Your task to perform on an android device: toggle sleep mode Image 0: 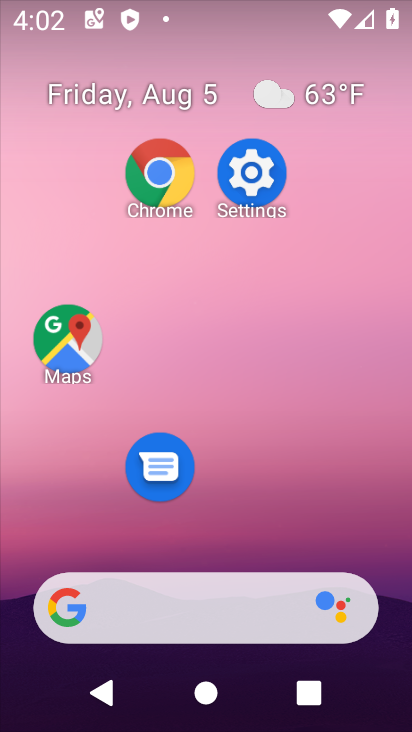
Step 0: drag from (312, 496) to (406, 83)
Your task to perform on an android device: toggle sleep mode Image 1: 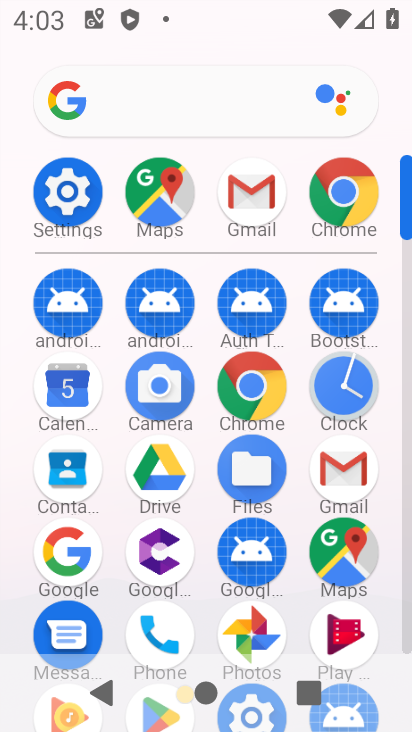
Step 1: click (64, 190)
Your task to perform on an android device: toggle sleep mode Image 2: 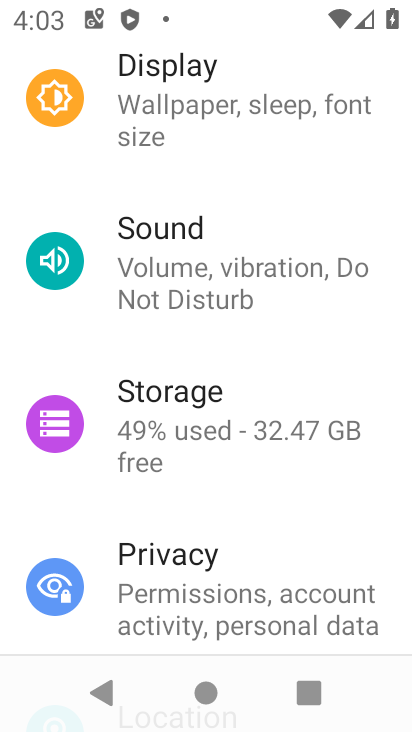
Step 2: click (163, 92)
Your task to perform on an android device: toggle sleep mode Image 3: 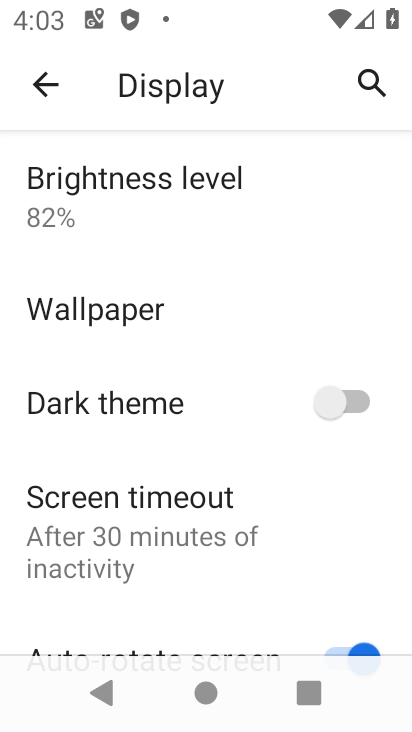
Step 3: click (118, 529)
Your task to perform on an android device: toggle sleep mode Image 4: 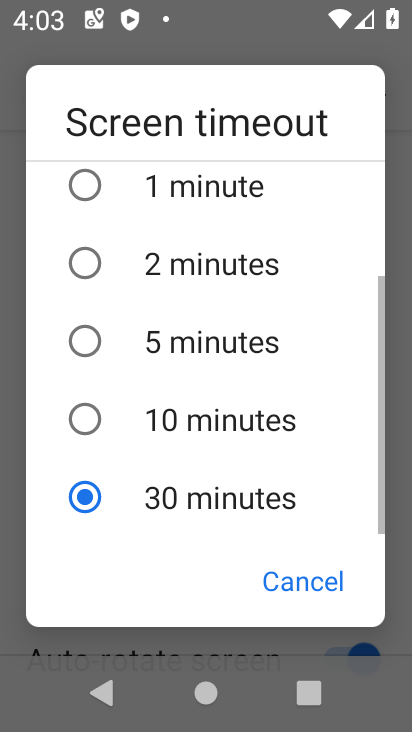
Step 4: click (147, 343)
Your task to perform on an android device: toggle sleep mode Image 5: 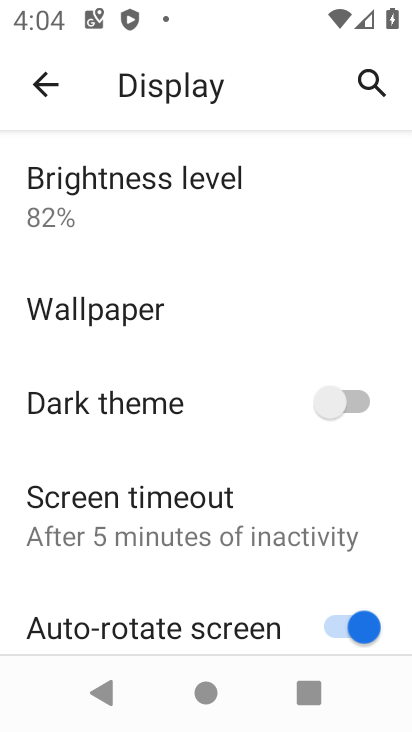
Step 5: task complete